Your task to perform on an android device: Search for the best selling TV on Best Buy. Image 0: 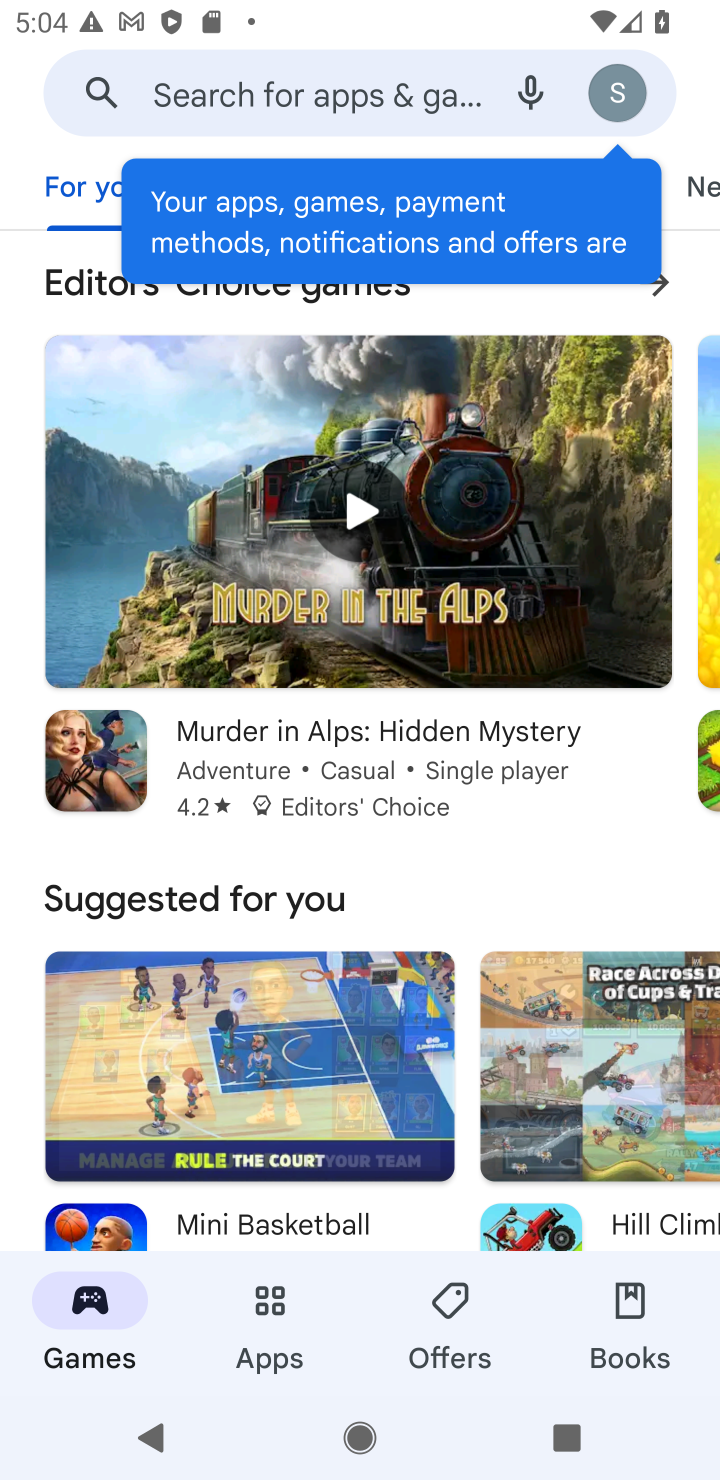
Step 0: press home button
Your task to perform on an android device: Search for the best selling TV on Best Buy. Image 1: 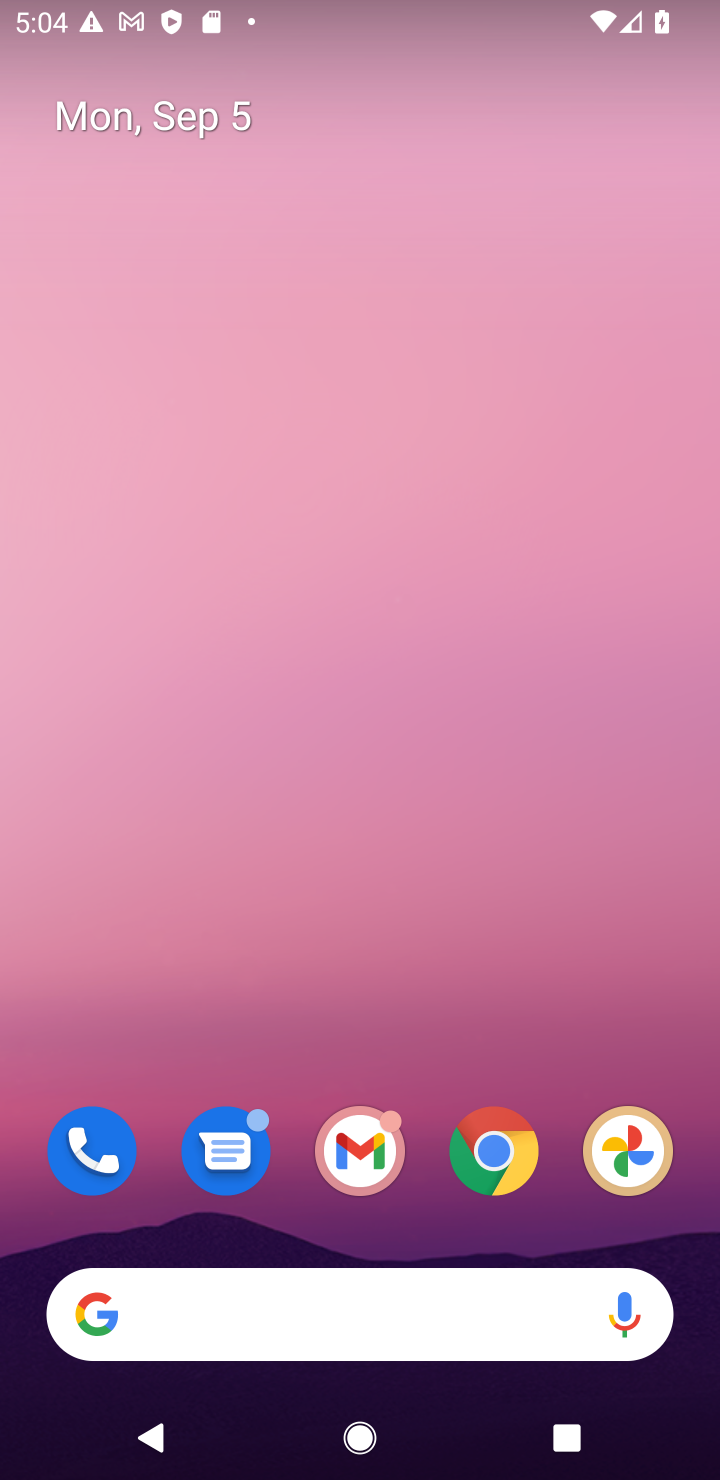
Step 1: click (498, 1181)
Your task to perform on an android device: Search for the best selling TV on Best Buy. Image 2: 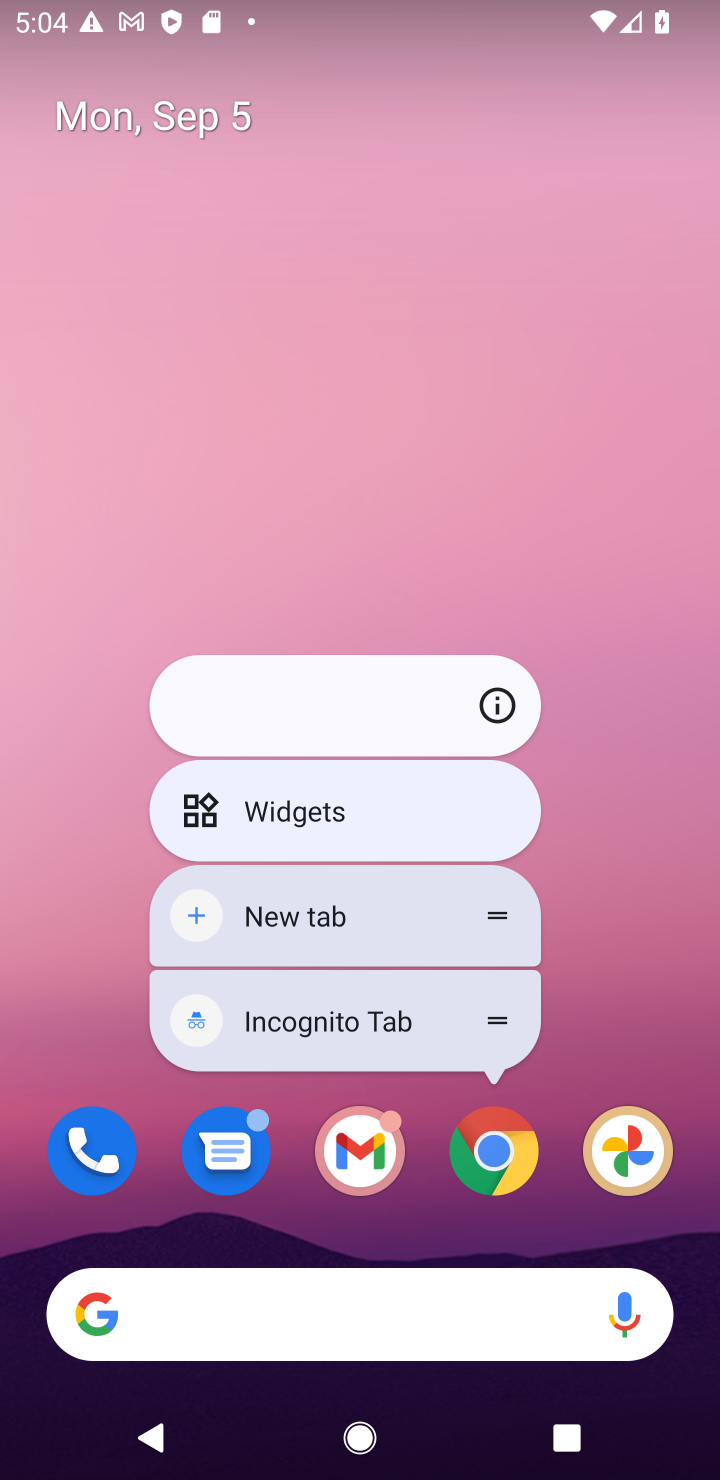
Step 2: click (488, 1171)
Your task to perform on an android device: Search for the best selling TV on Best Buy. Image 3: 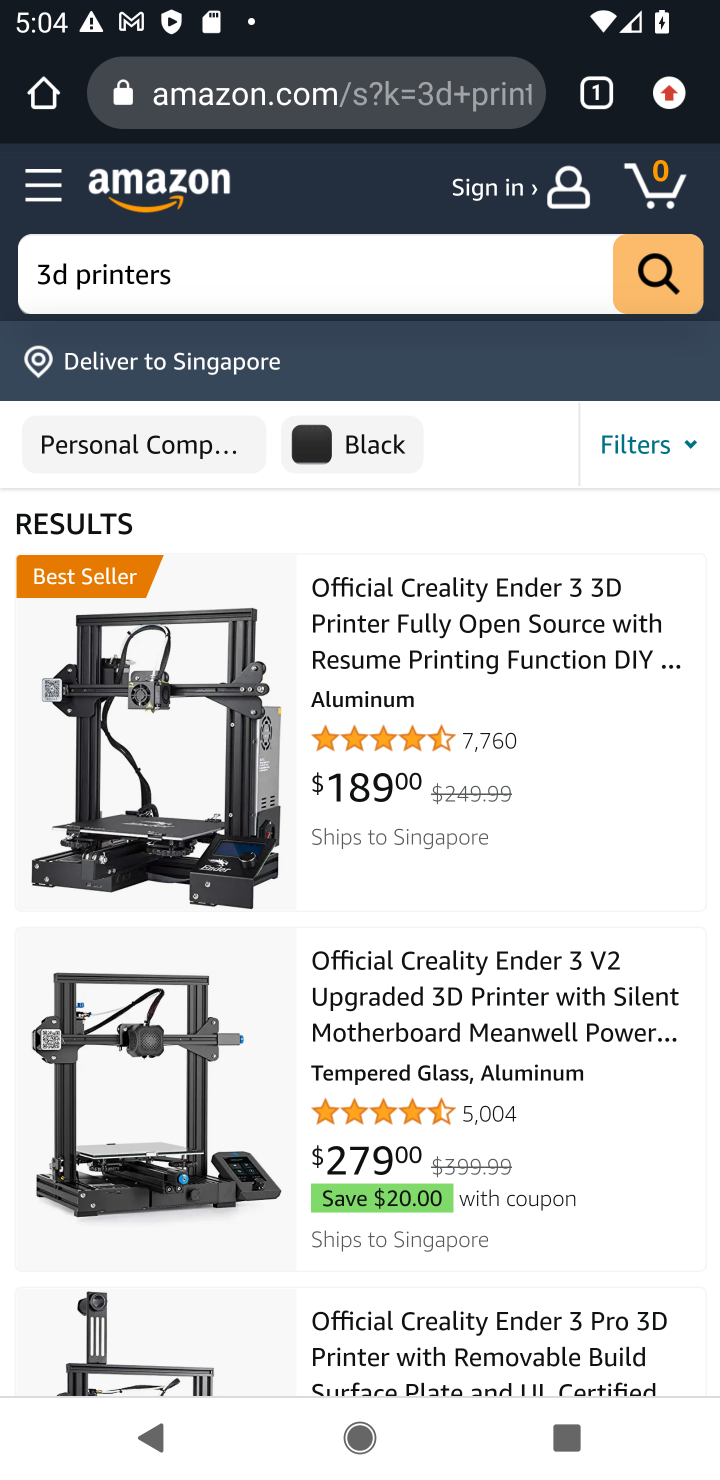
Step 3: click (426, 75)
Your task to perform on an android device: Search for the best selling TV on Best Buy. Image 4: 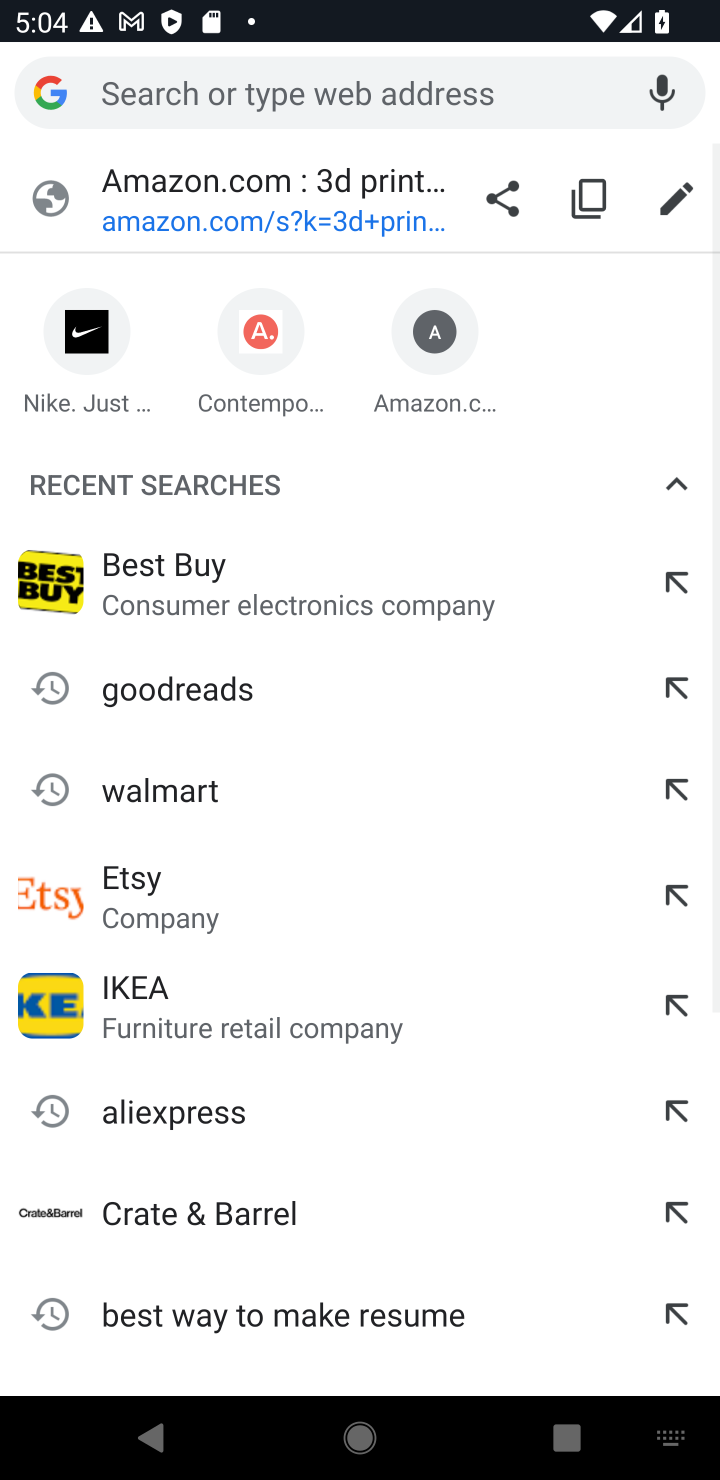
Step 4: click (288, 599)
Your task to perform on an android device: Search for the best selling TV on Best Buy. Image 5: 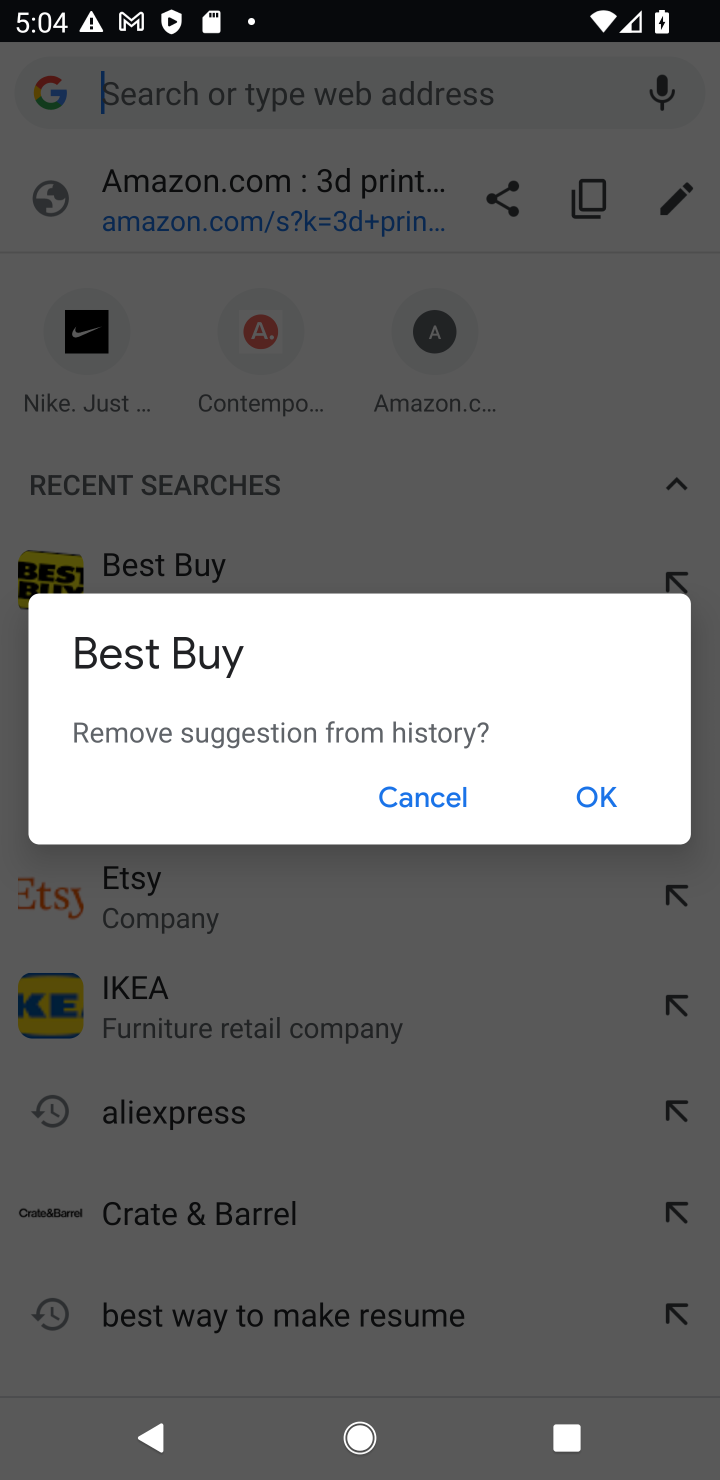
Step 5: click (439, 793)
Your task to perform on an android device: Search for the best selling TV on Best Buy. Image 6: 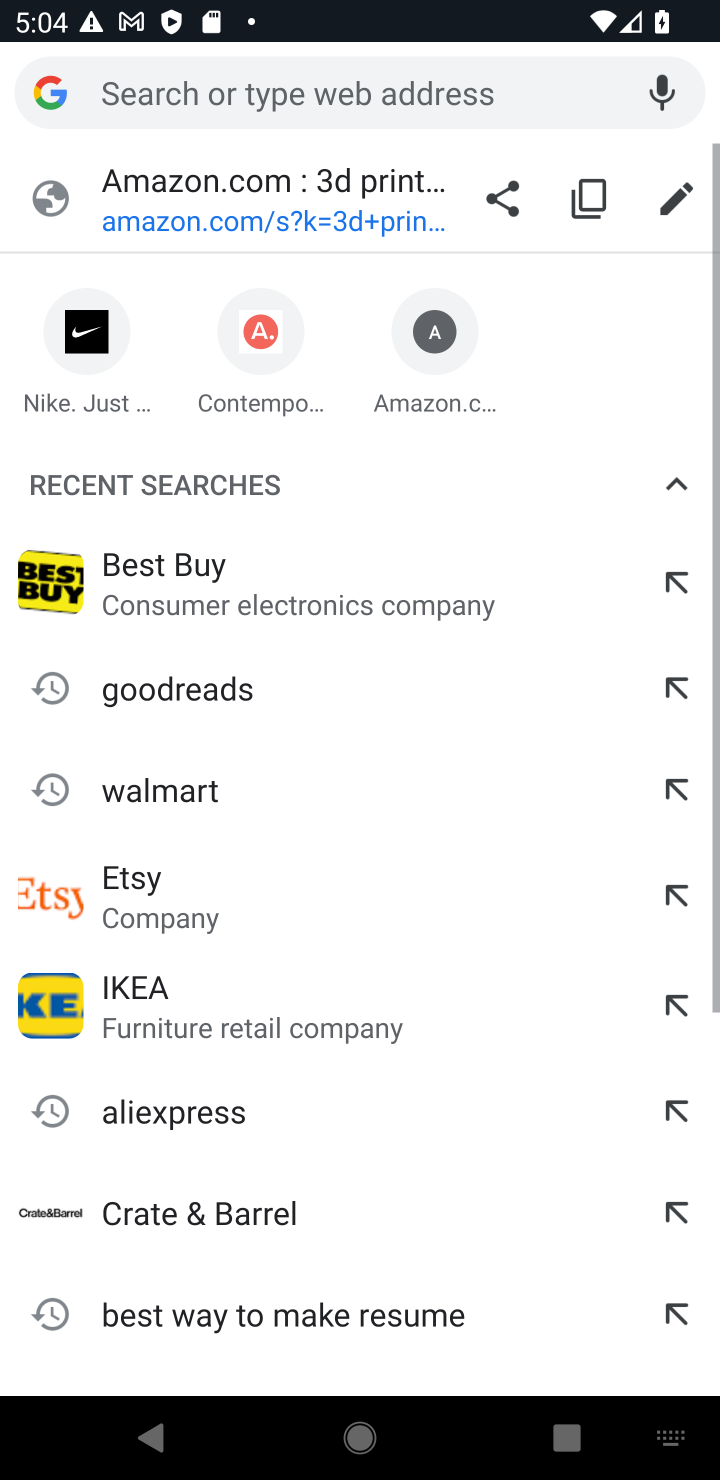
Step 6: click (449, 600)
Your task to perform on an android device: Search for the best selling TV on Best Buy. Image 7: 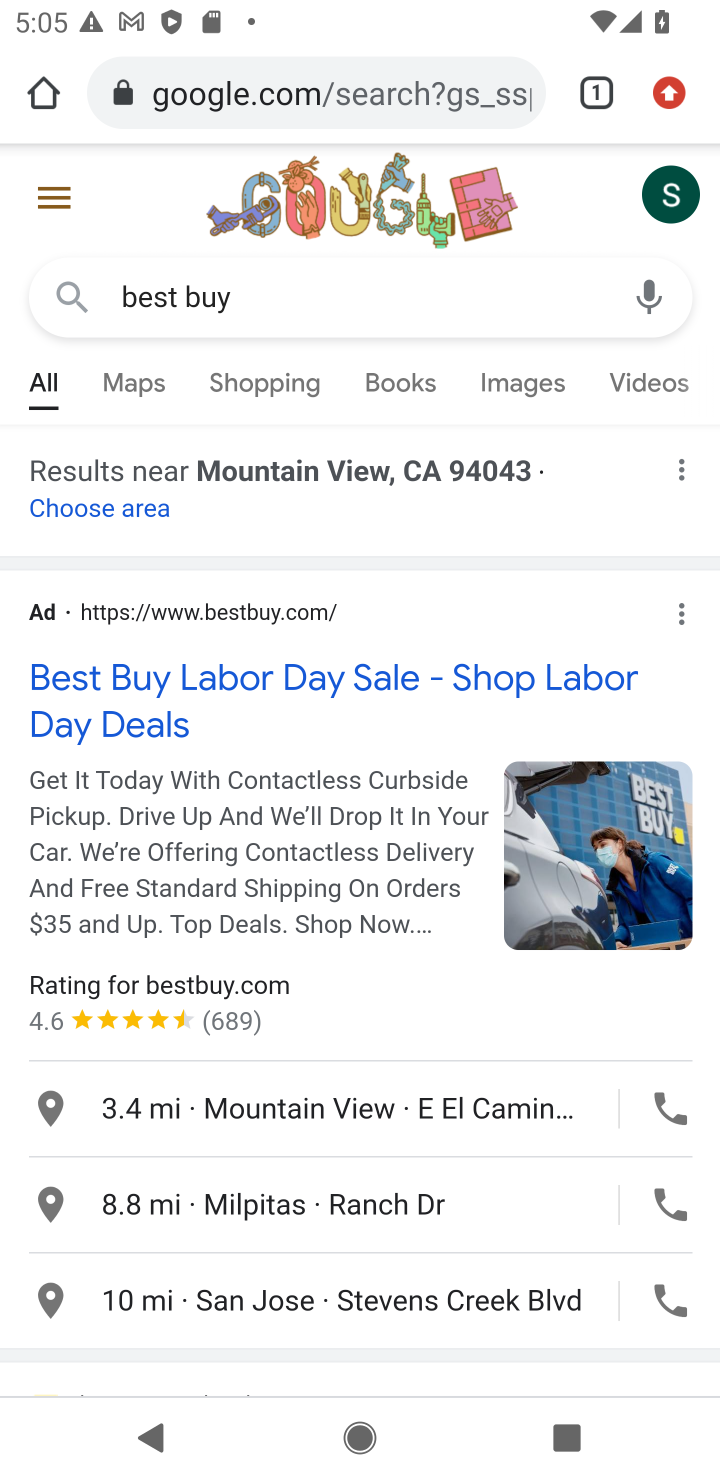
Step 7: click (496, 41)
Your task to perform on an android device: Search for the best selling TV on Best Buy. Image 8: 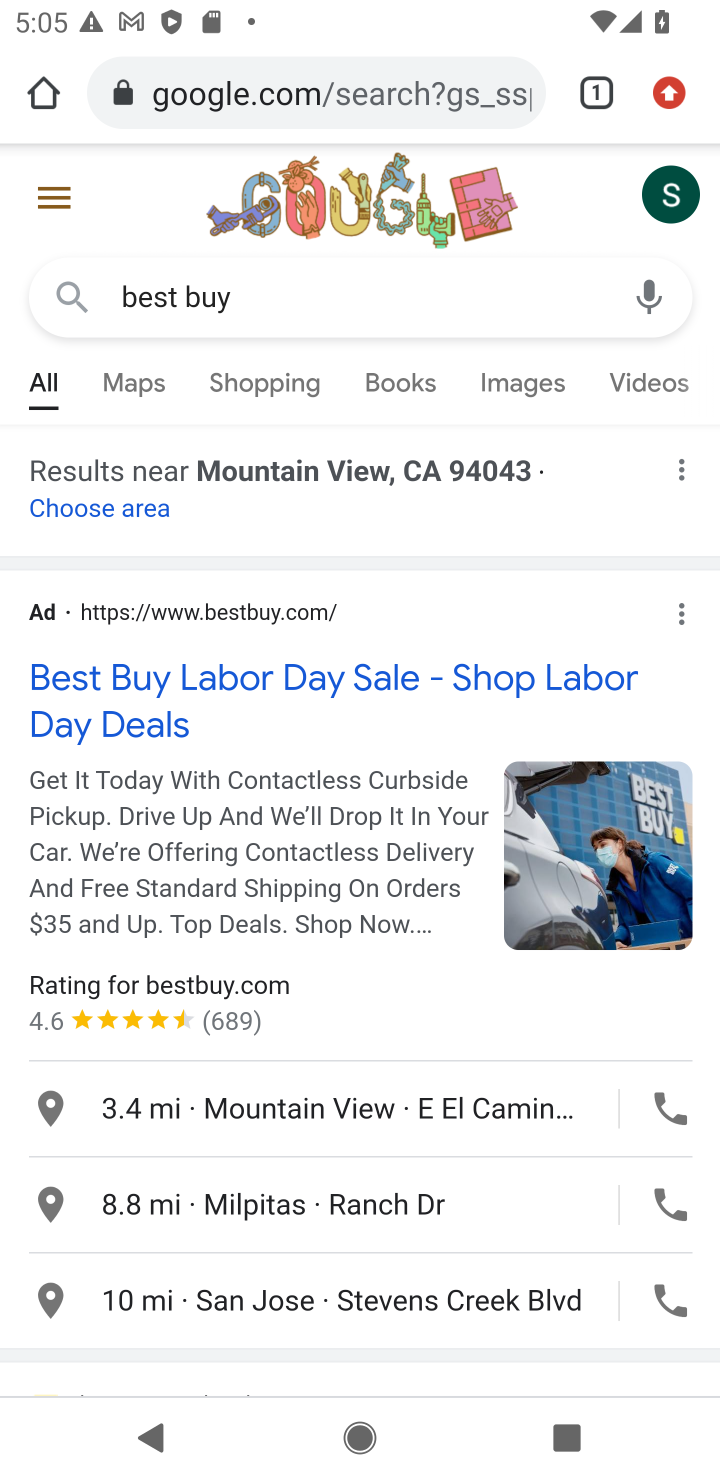
Step 8: drag from (509, 719) to (573, 518)
Your task to perform on an android device: Search for the best selling TV on Best Buy. Image 9: 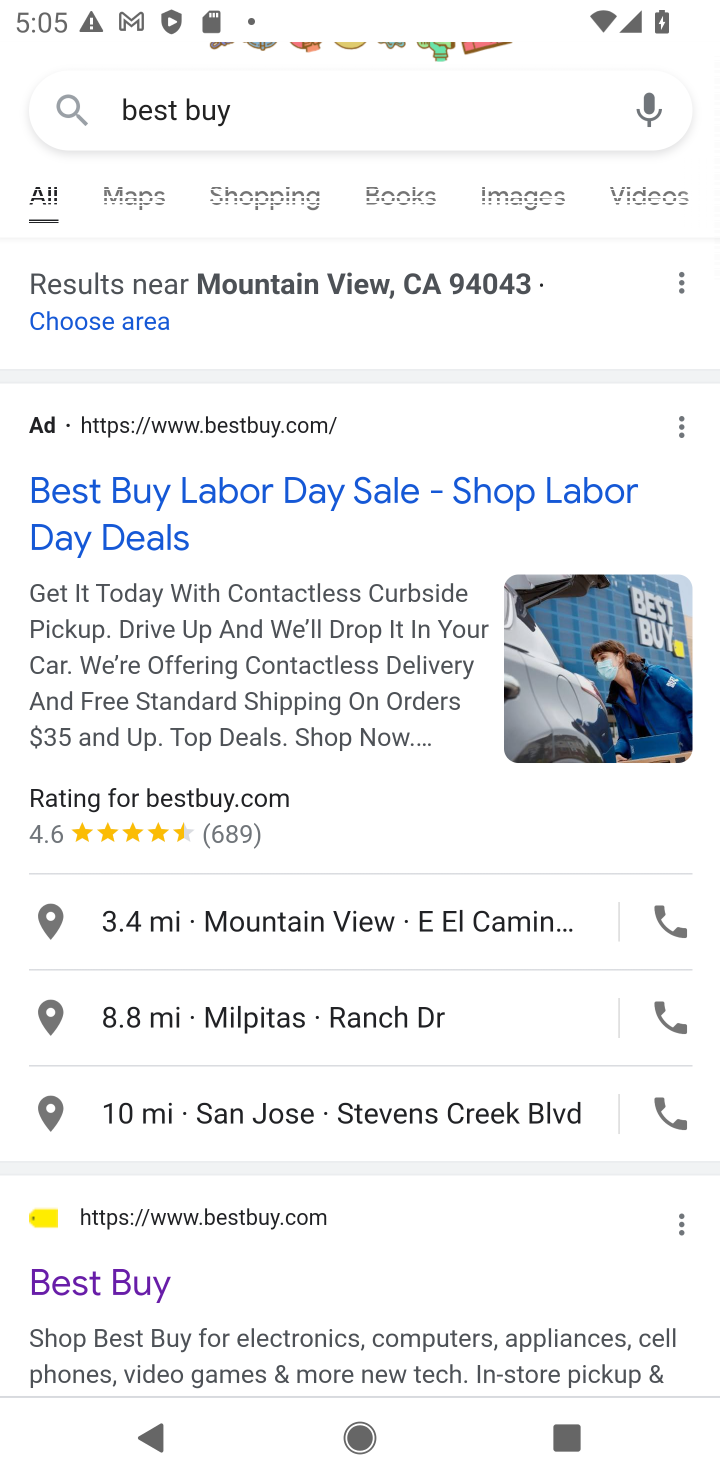
Step 9: click (63, 1273)
Your task to perform on an android device: Search for the best selling TV on Best Buy. Image 10: 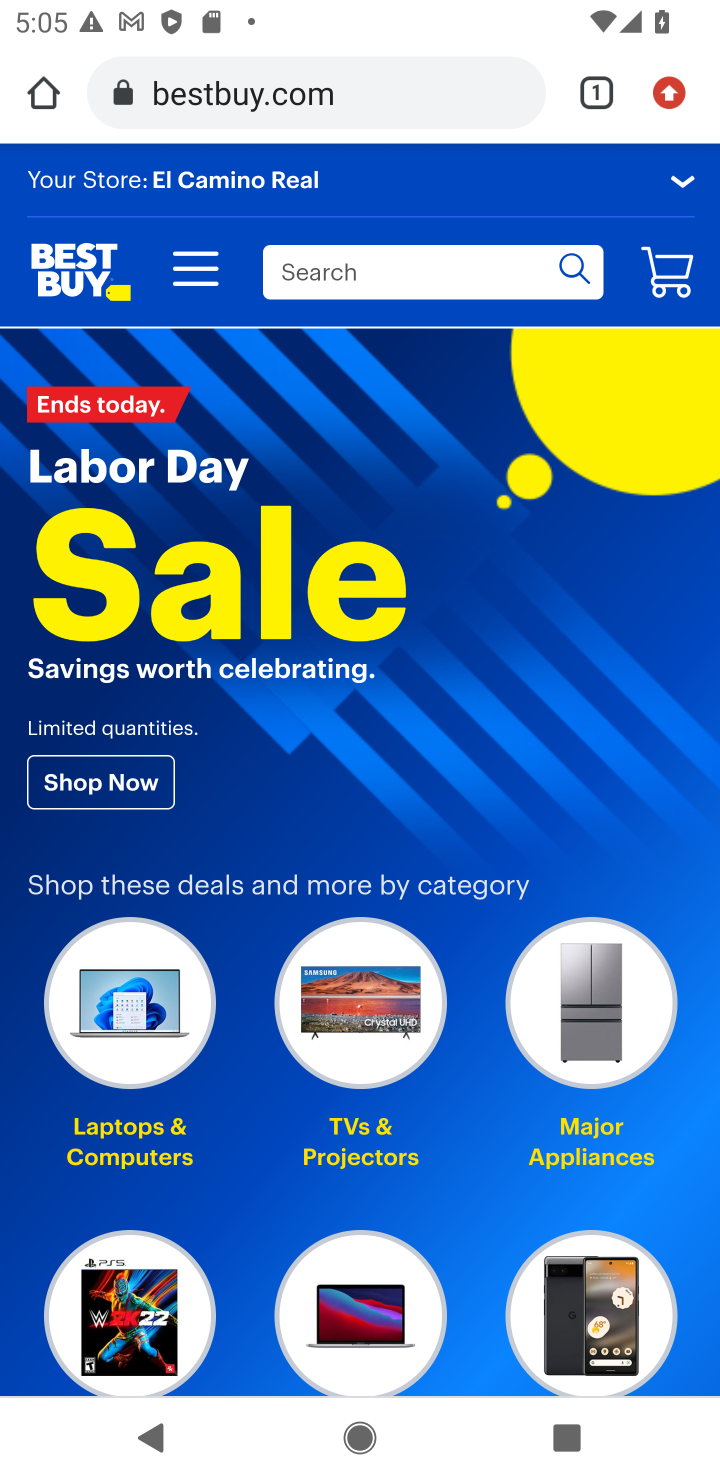
Step 10: click (501, 264)
Your task to perform on an android device: Search for the best selling TV on Best Buy. Image 11: 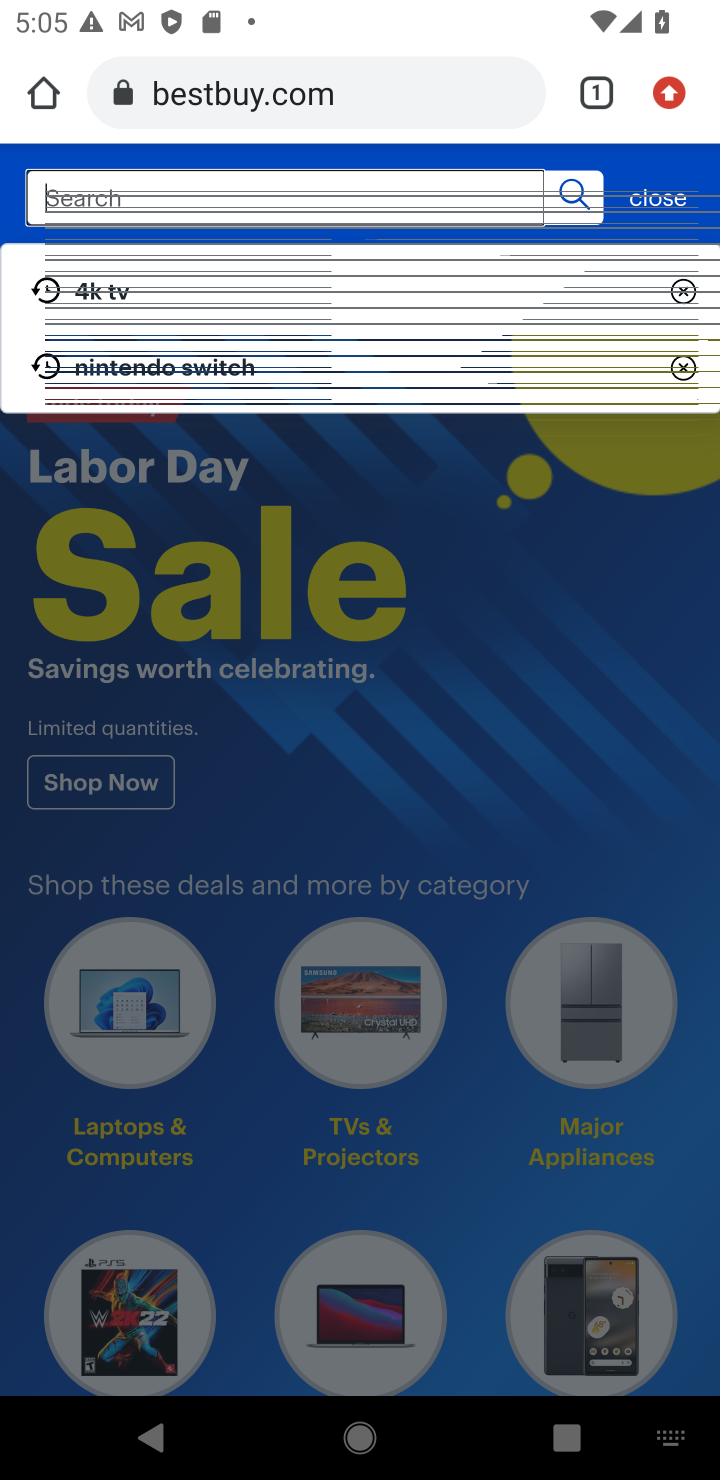
Step 11: type "best selling TV"
Your task to perform on an android device: Search for the best selling TV on Best Buy. Image 12: 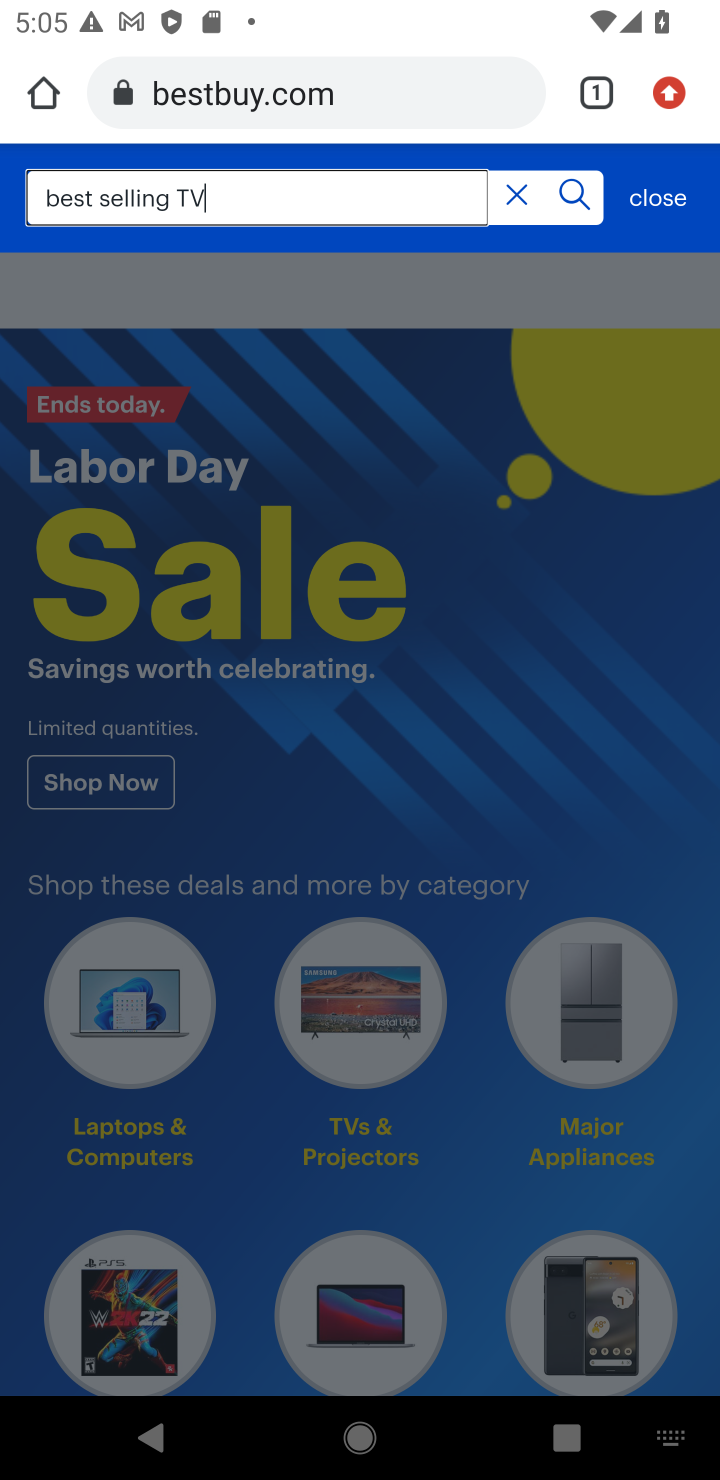
Step 12: click (578, 198)
Your task to perform on an android device: Search for the best selling TV on Best Buy. Image 13: 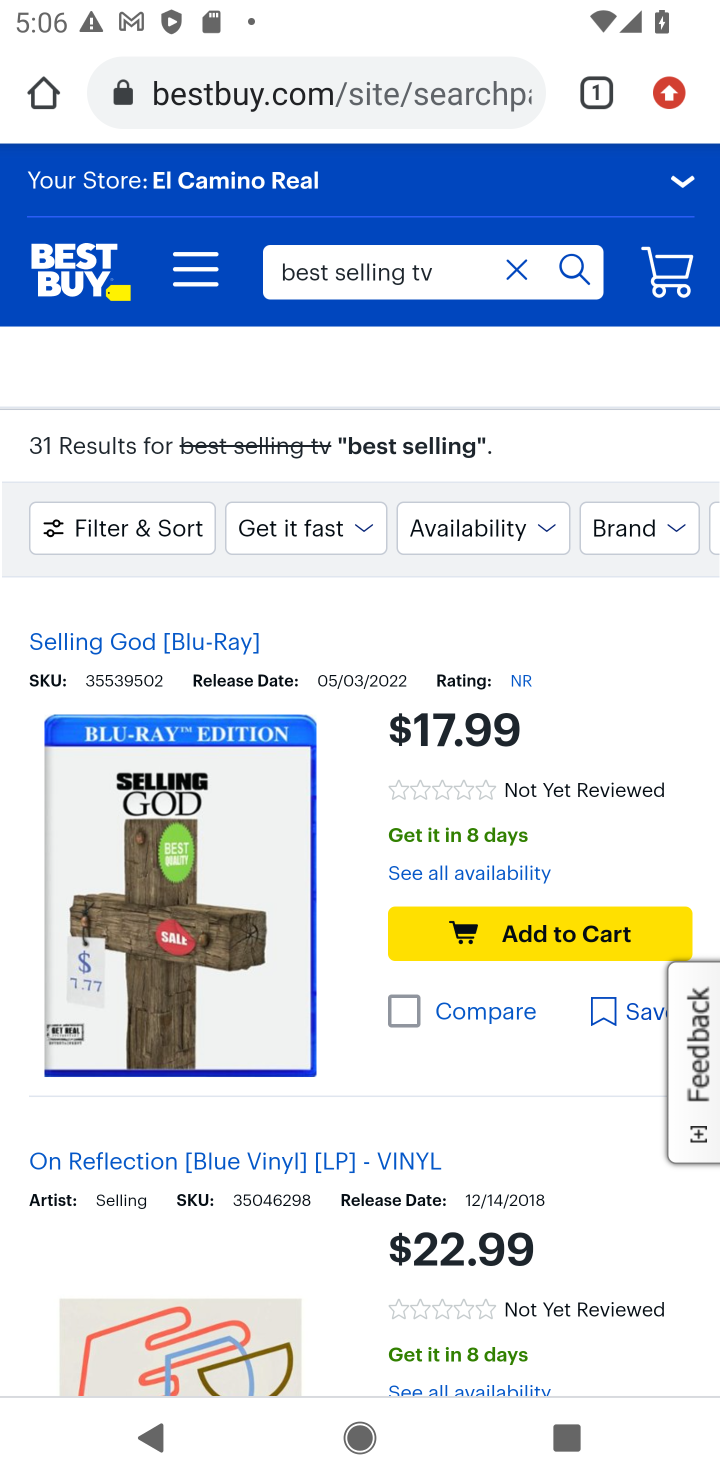
Step 13: task complete